Your task to perform on an android device: Show me recent news Image 0: 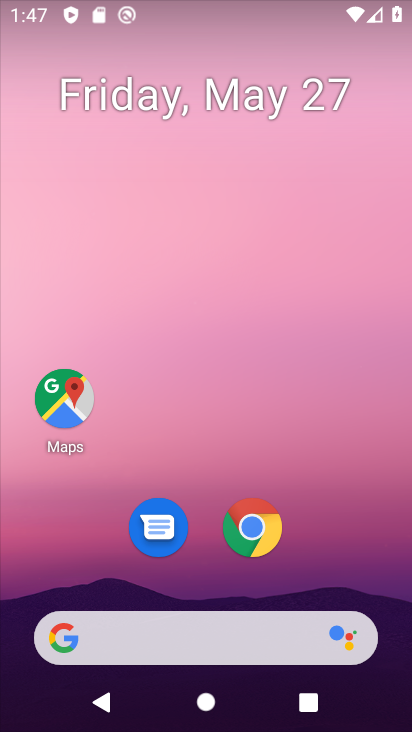
Step 0: drag from (259, 563) to (368, 100)
Your task to perform on an android device: Show me recent news Image 1: 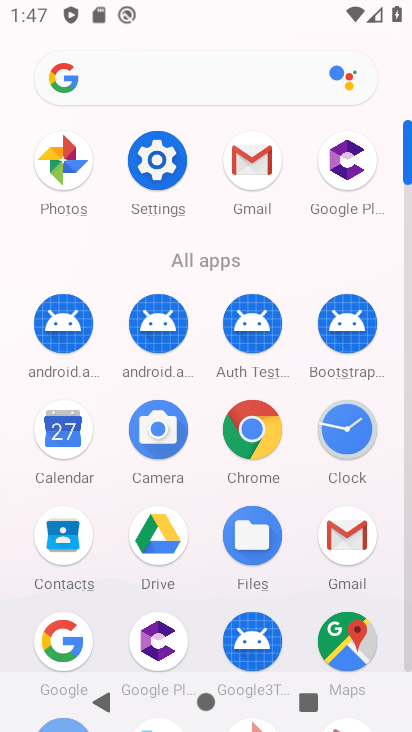
Step 1: click (69, 644)
Your task to perform on an android device: Show me recent news Image 2: 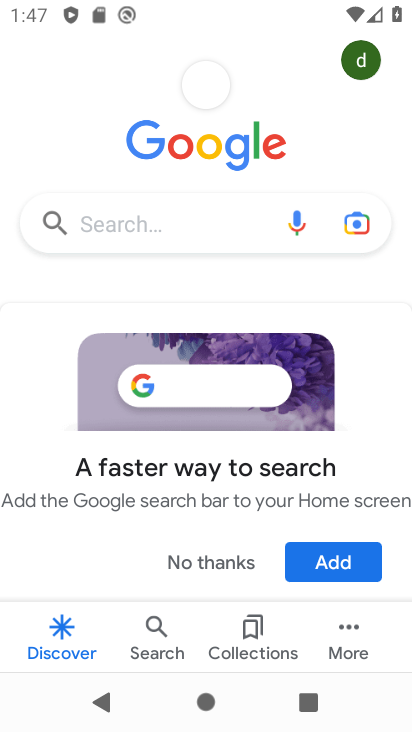
Step 2: click (150, 226)
Your task to perform on an android device: Show me recent news Image 3: 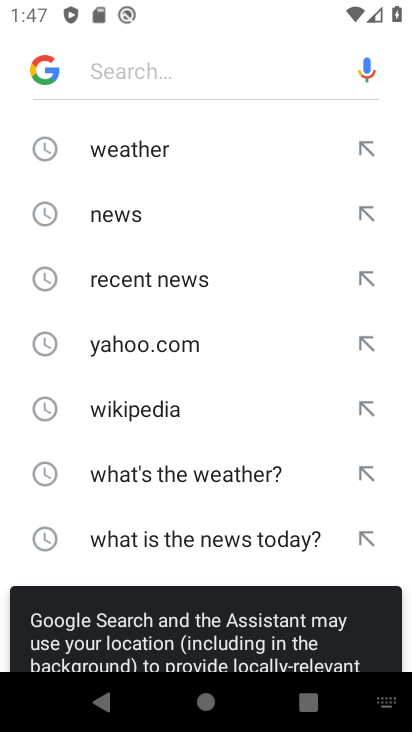
Step 3: click (191, 283)
Your task to perform on an android device: Show me recent news Image 4: 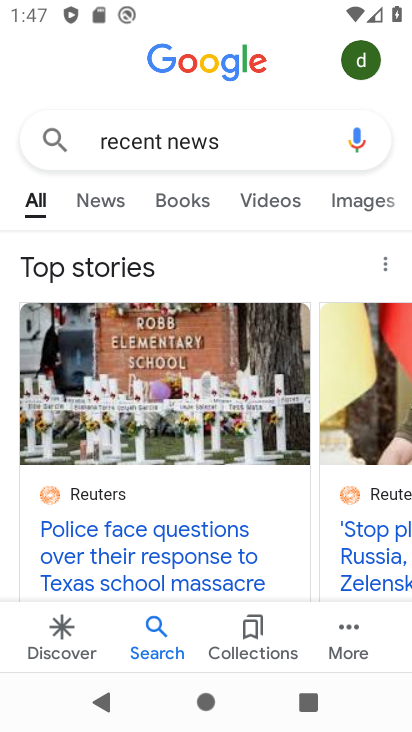
Step 4: task complete